Your task to perform on an android device: open app "TextNow: Call + Text Unlimited" (install if not already installed) Image 0: 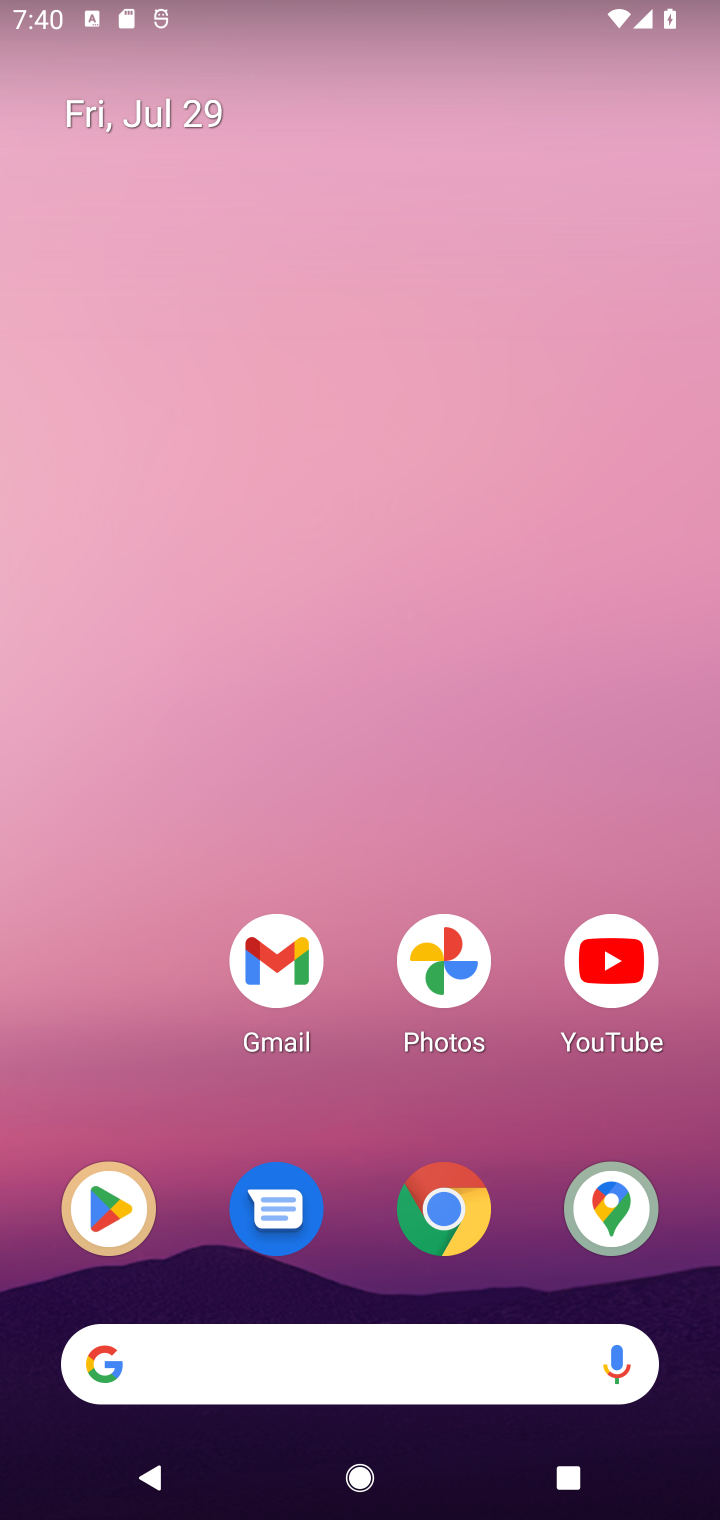
Step 0: click (130, 1213)
Your task to perform on an android device: open app "TextNow: Call + Text Unlimited" (install if not already installed) Image 1: 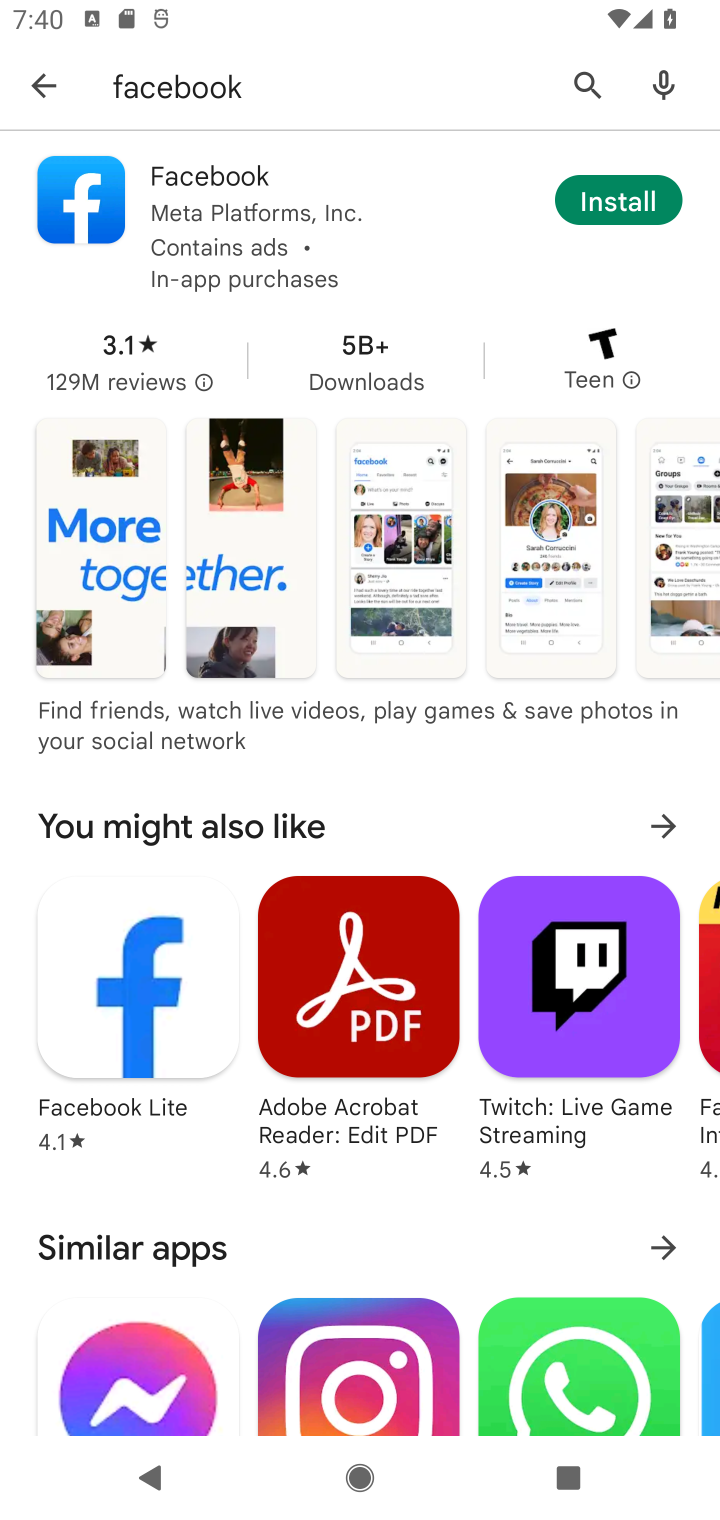
Step 1: click (593, 82)
Your task to perform on an android device: open app "TextNow: Call + Text Unlimited" (install if not already installed) Image 2: 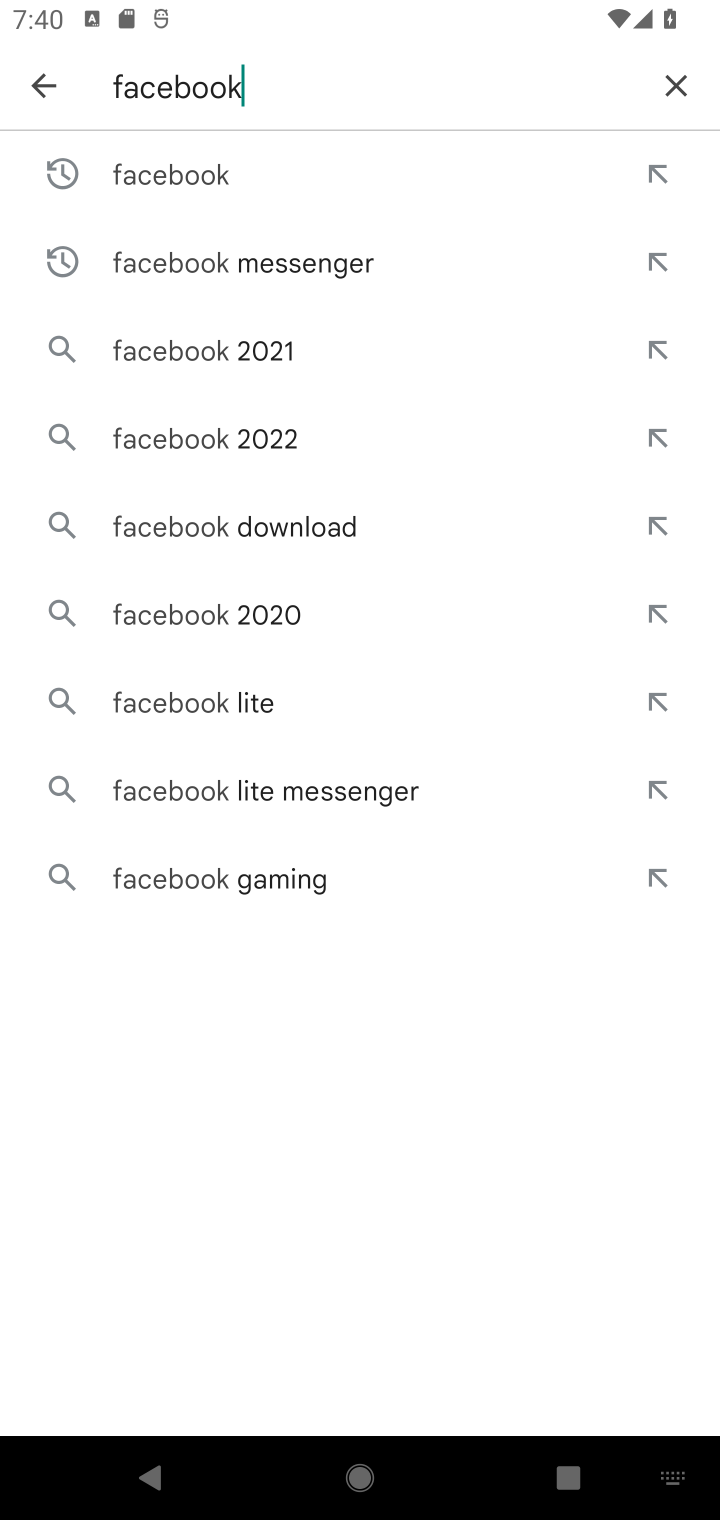
Step 2: click (683, 98)
Your task to perform on an android device: open app "TextNow: Call + Text Unlimited" (install if not already installed) Image 3: 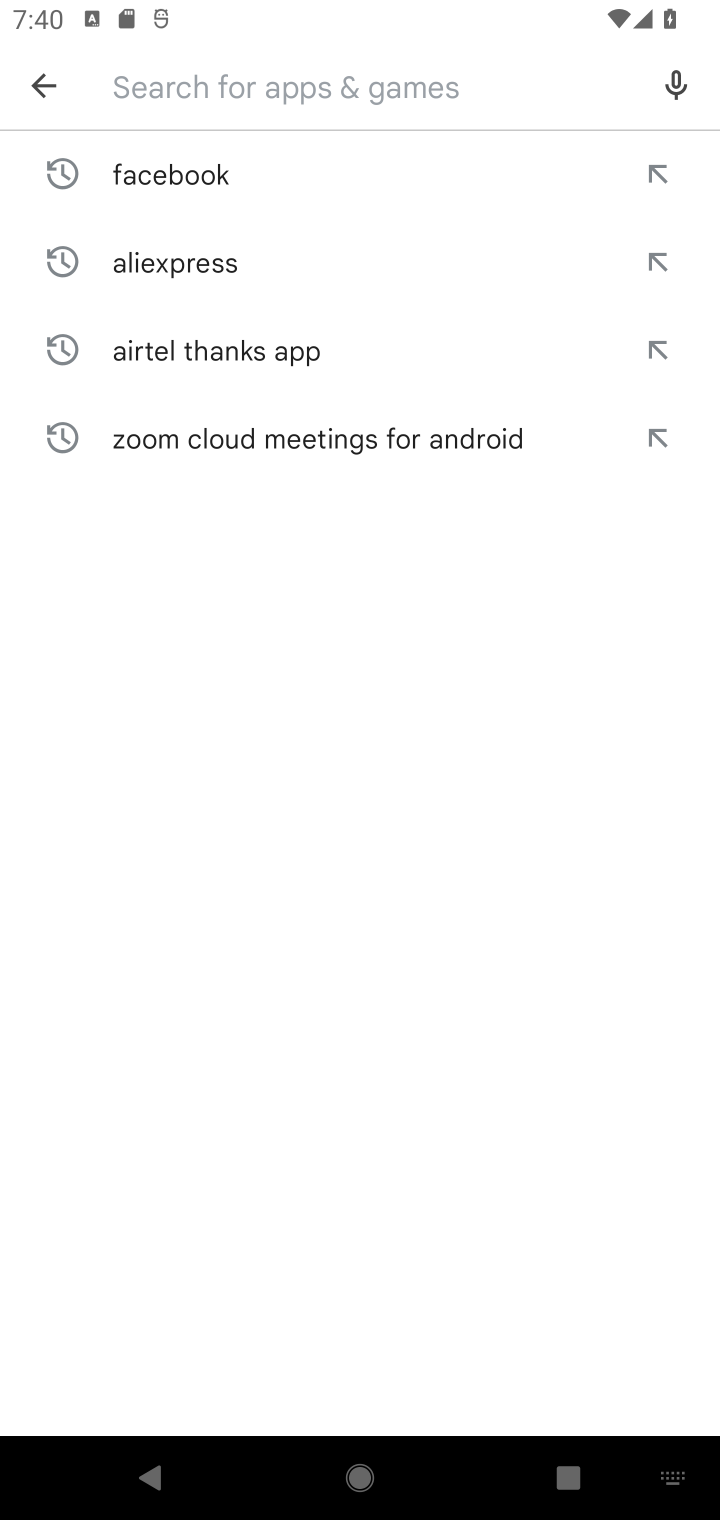
Step 3: type "TextNow: Call + Text Unlimited"
Your task to perform on an android device: open app "TextNow: Call + Text Unlimited" (install if not already installed) Image 4: 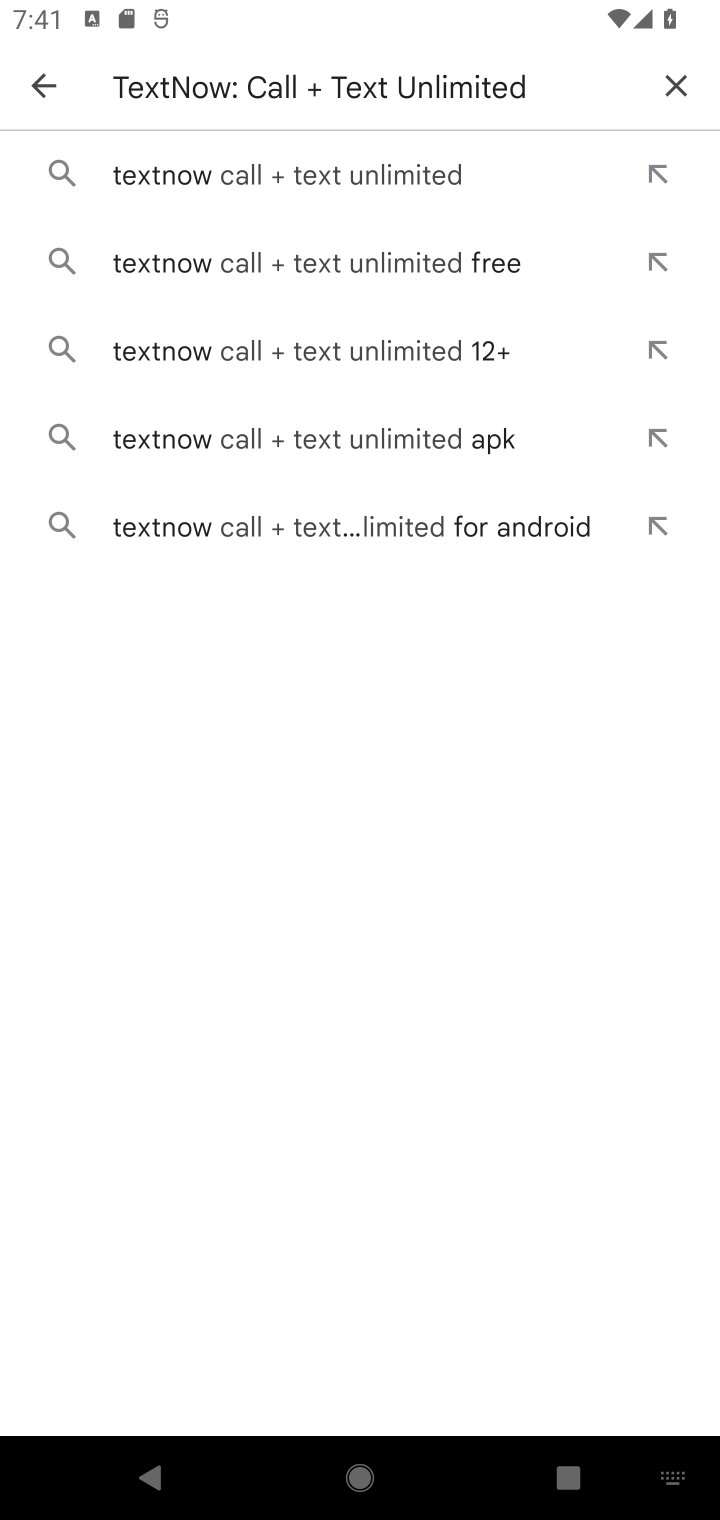
Step 4: click (287, 183)
Your task to perform on an android device: open app "TextNow: Call + Text Unlimited" (install if not already installed) Image 5: 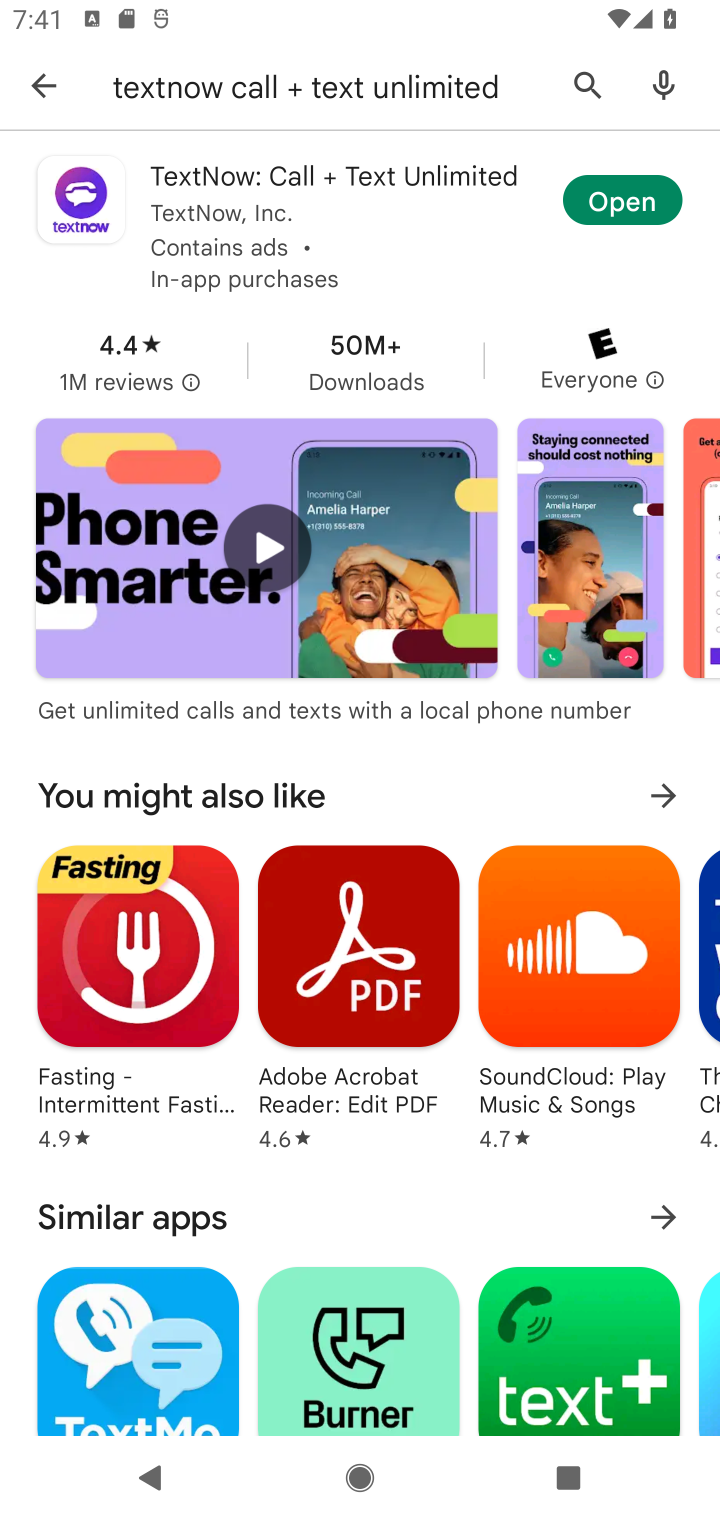
Step 5: click (605, 227)
Your task to perform on an android device: open app "TextNow: Call + Text Unlimited" (install if not already installed) Image 6: 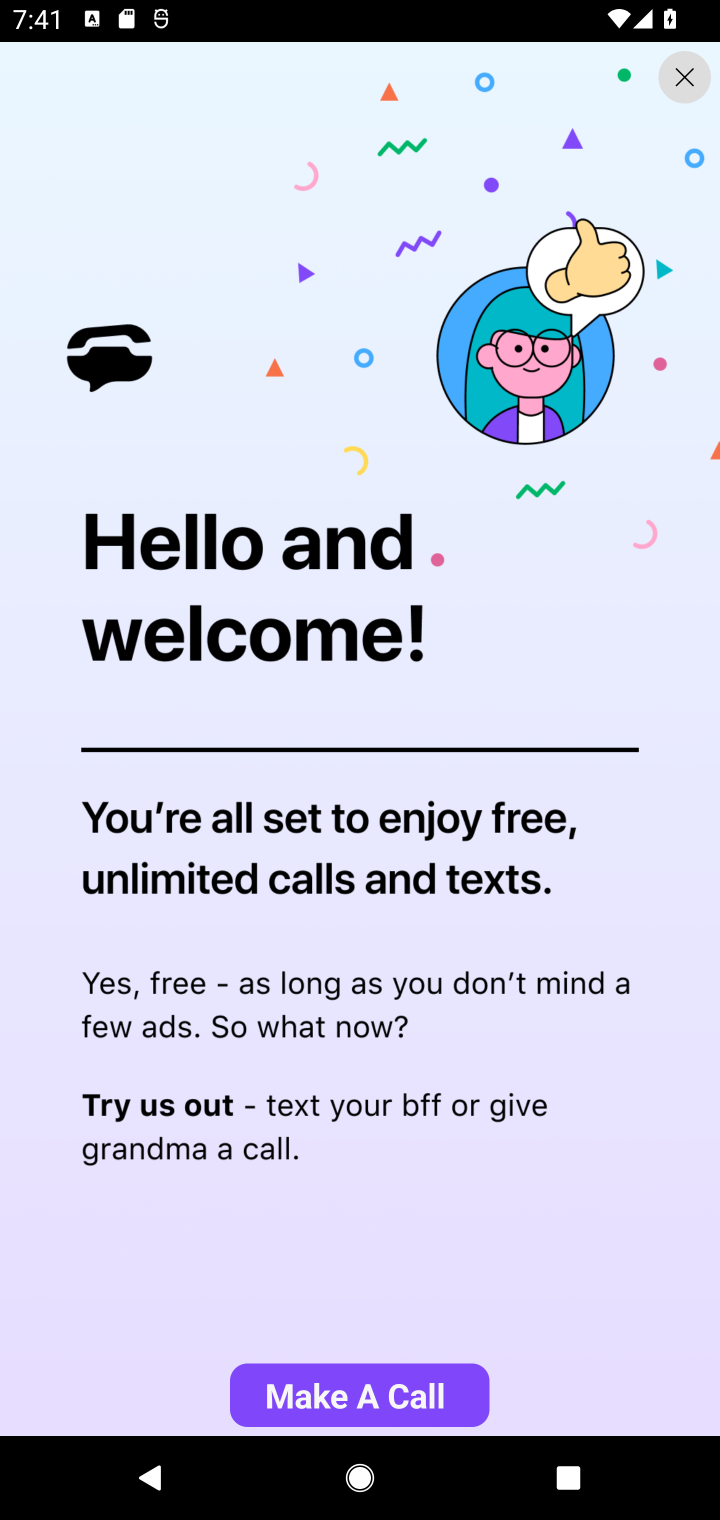
Step 6: task complete